Your task to perform on an android device: turn off priority inbox in the gmail app Image 0: 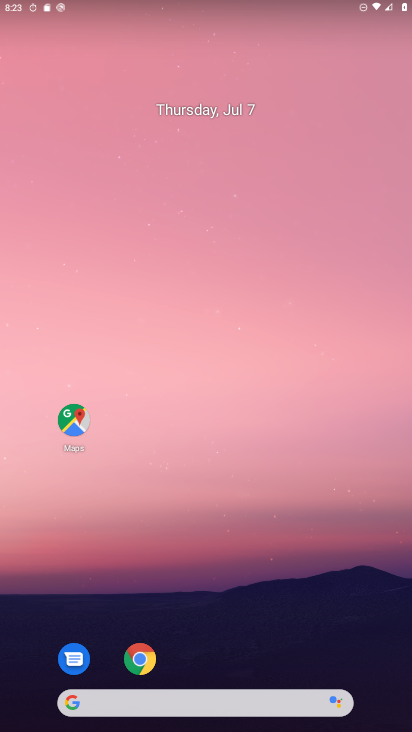
Step 0: drag from (382, 654) to (211, 0)
Your task to perform on an android device: turn off priority inbox in the gmail app Image 1: 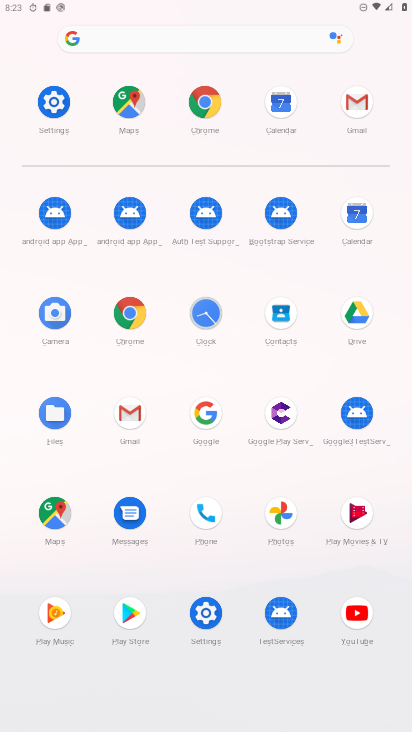
Step 1: click (99, 419)
Your task to perform on an android device: turn off priority inbox in the gmail app Image 2: 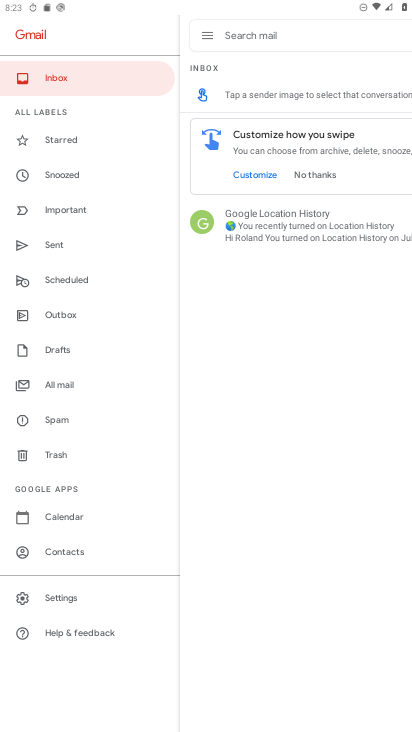
Step 2: click (62, 593)
Your task to perform on an android device: turn off priority inbox in the gmail app Image 3: 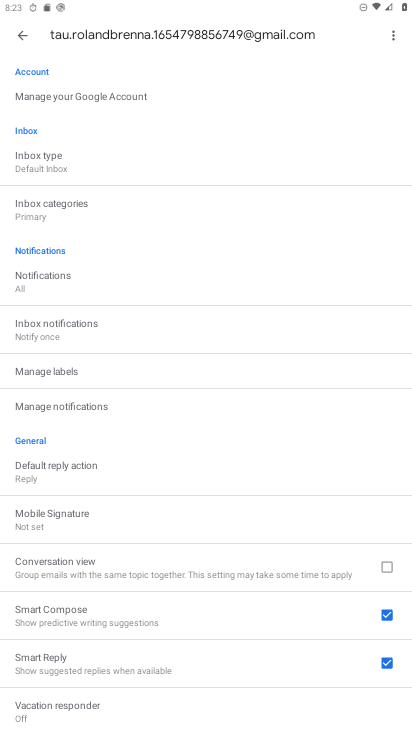
Step 3: click (56, 173)
Your task to perform on an android device: turn off priority inbox in the gmail app Image 4: 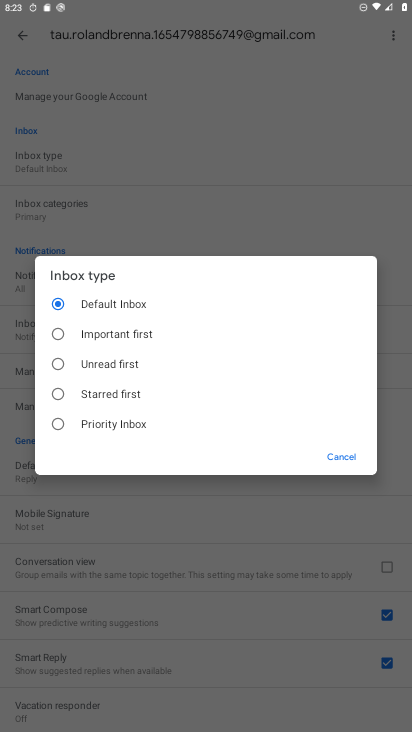
Step 4: task complete